Your task to perform on an android device: Open Google Maps Image 0: 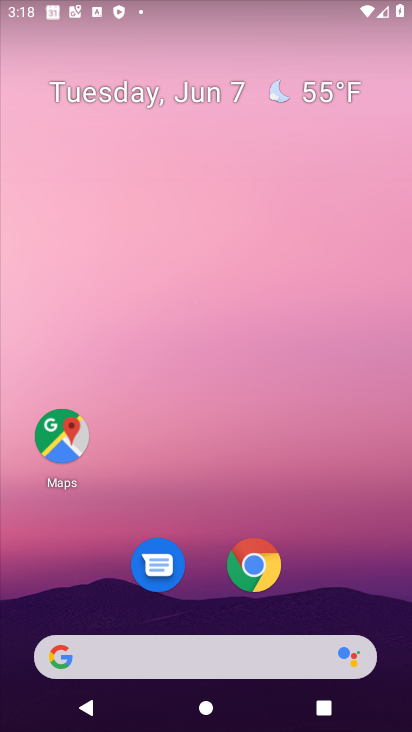
Step 0: drag from (248, 645) to (298, 0)
Your task to perform on an android device: Open Google Maps Image 1: 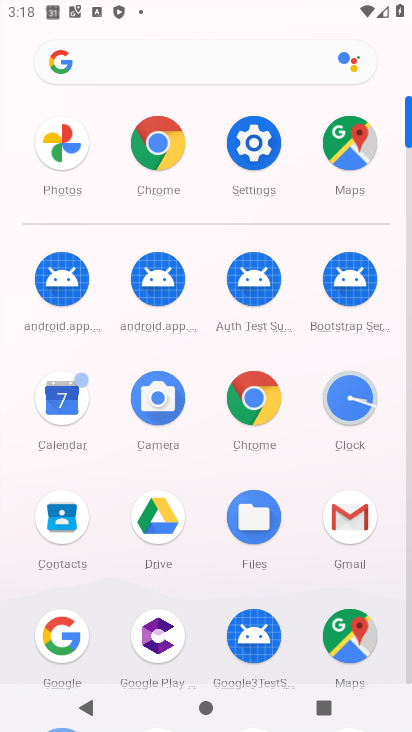
Step 1: click (344, 639)
Your task to perform on an android device: Open Google Maps Image 2: 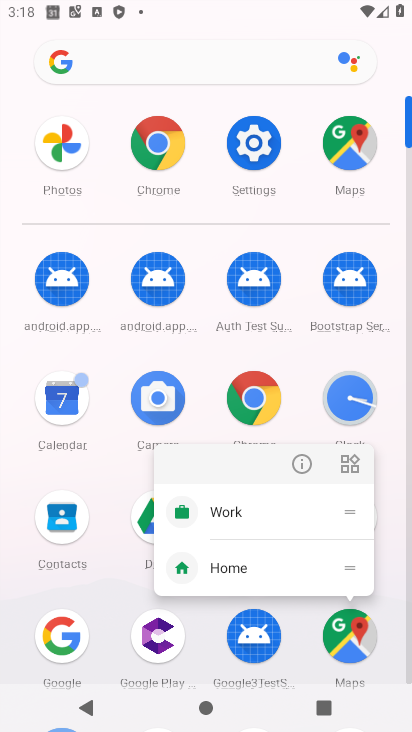
Step 2: click (345, 648)
Your task to perform on an android device: Open Google Maps Image 3: 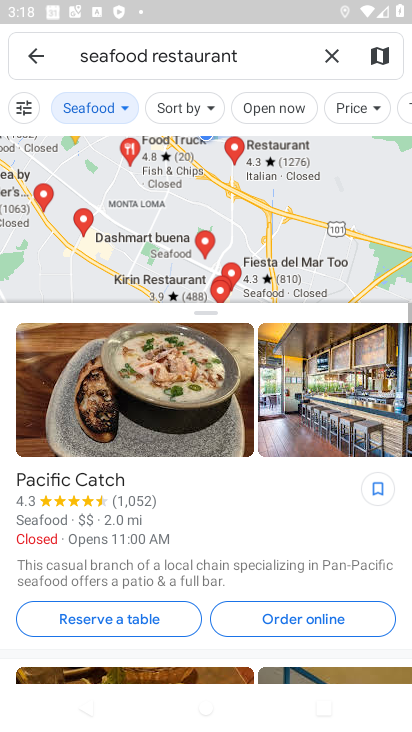
Step 3: task complete